Your task to perform on an android device: toggle pop-ups in chrome Image 0: 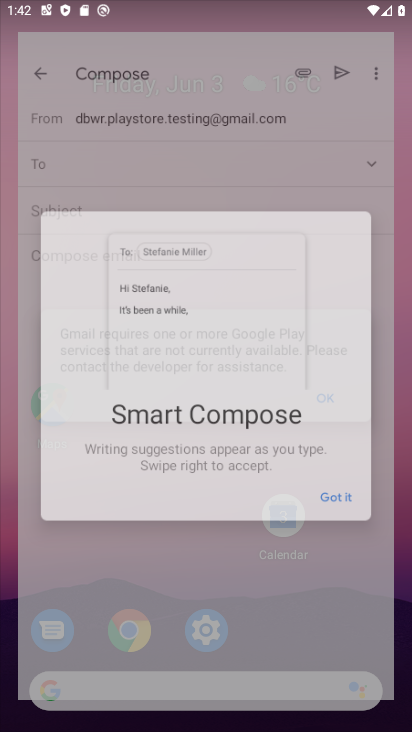
Step 0: drag from (285, 708) to (203, 202)
Your task to perform on an android device: toggle pop-ups in chrome Image 1: 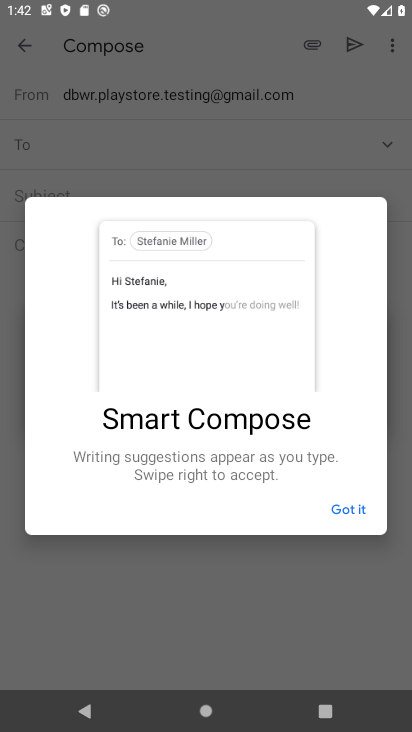
Step 1: press home button
Your task to perform on an android device: toggle pop-ups in chrome Image 2: 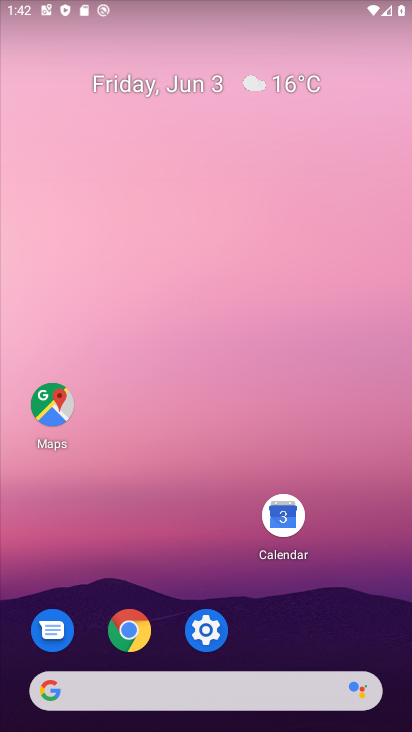
Step 2: drag from (281, 652) to (157, 110)
Your task to perform on an android device: toggle pop-ups in chrome Image 3: 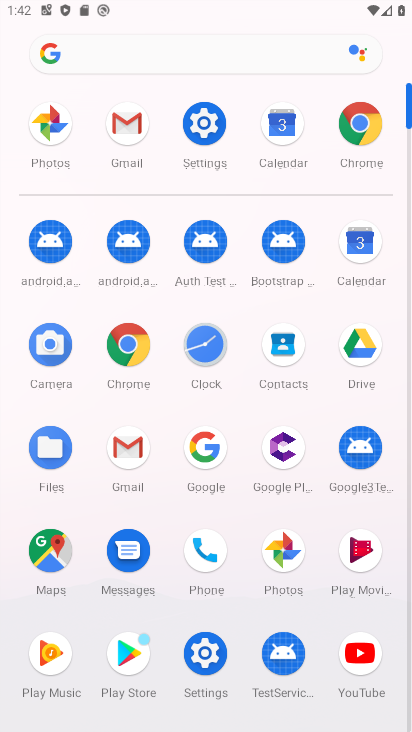
Step 3: click (136, 344)
Your task to perform on an android device: toggle pop-ups in chrome Image 4: 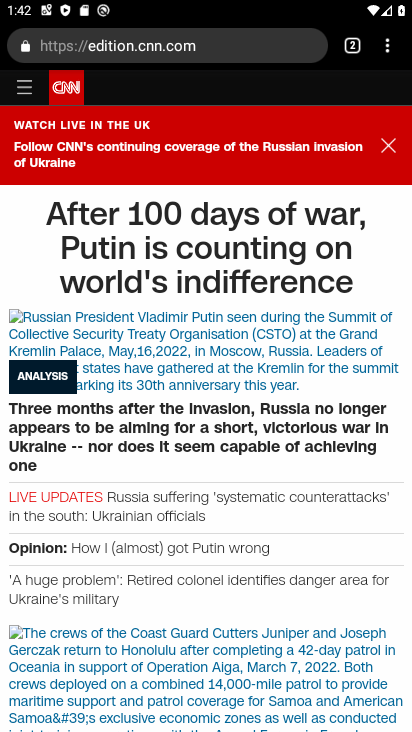
Step 4: click (384, 45)
Your task to perform on an android device: toggle pop-ups in chrome Image 5: 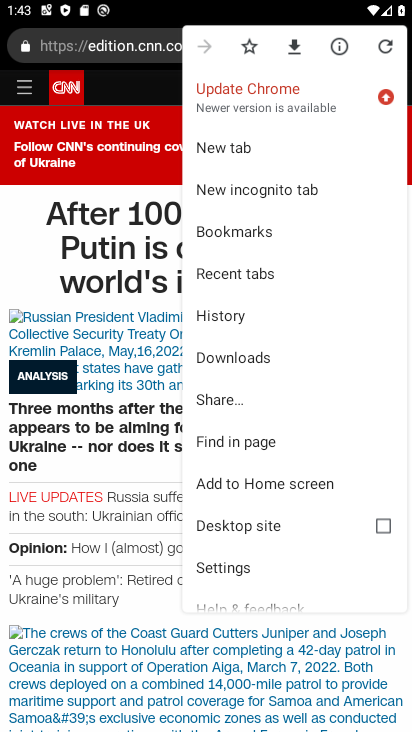
Step 5: click (253, 560)
Your task to perform on an android device: toggle pop-ups in chrome Image 6: 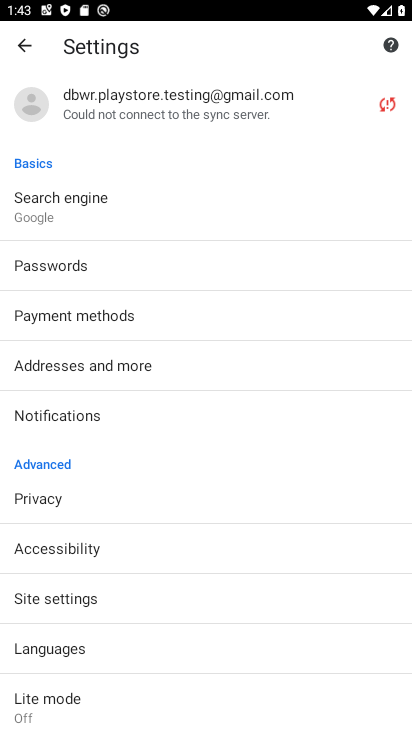
Step 6: click (159, 603)
Your task to perform on an android device: toggle pop-ups in chrome Image 7: 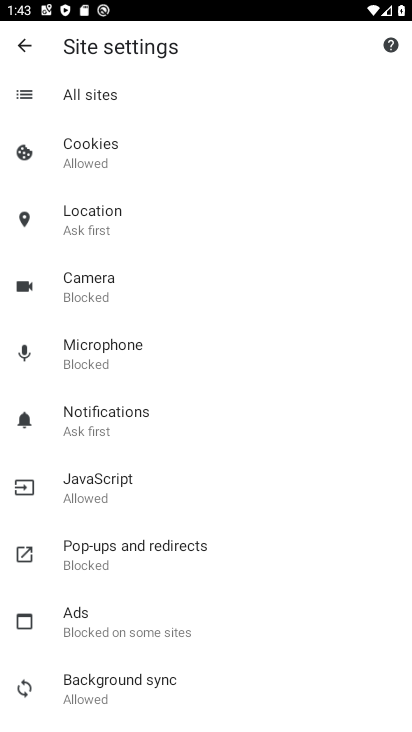
Step 7: click (137, 532)
Your task to perform on an android device: toggle pop-ups in chrome Image 8: 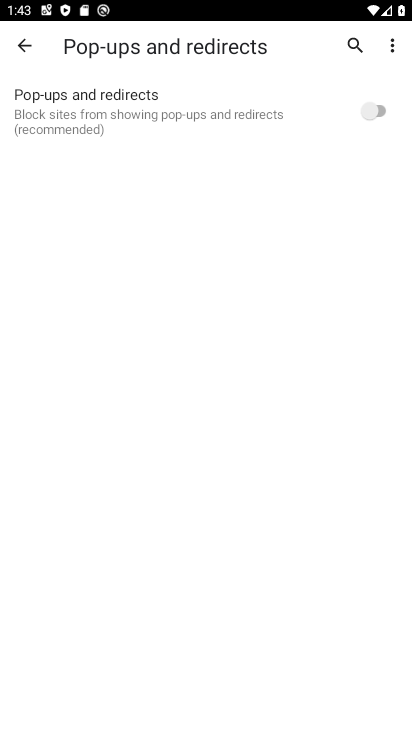
Step 8: task complete